Your task to perform on an android device: add a label to a message in the gmail app Image 0: 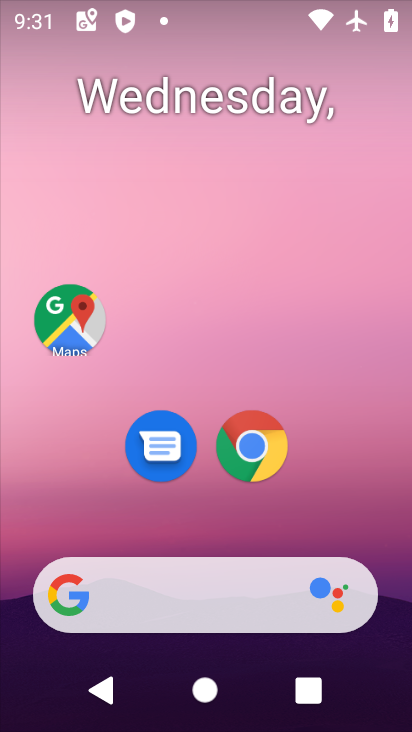
Step 0: press home button
Your task to perform on an android device: add a label to a message in the gmail app Image 1: 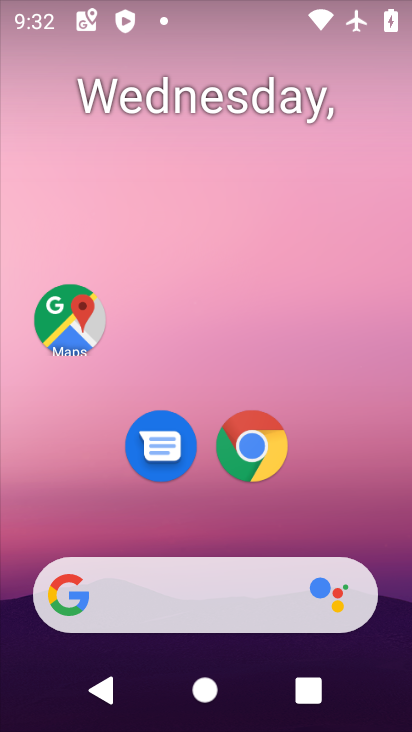
Step 1: drag from (127, 610) to (254, 164)
Your task to perform on an android device: add a label to a message in the gmail app Image 2: 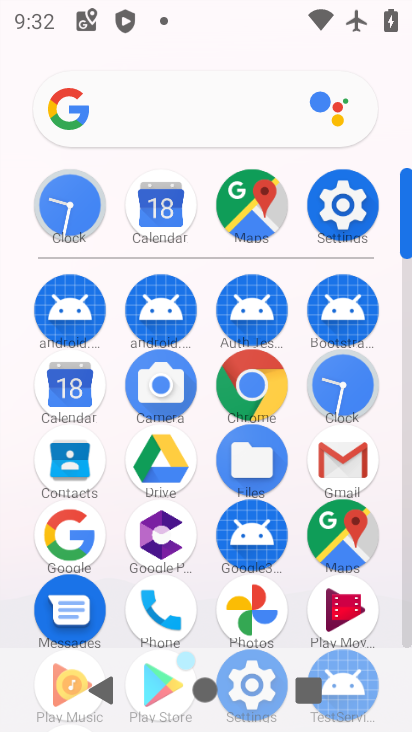
Step 2: click (338, 474)
Your task to perform on an android device: add a label to a message in the gmail app Image 3: 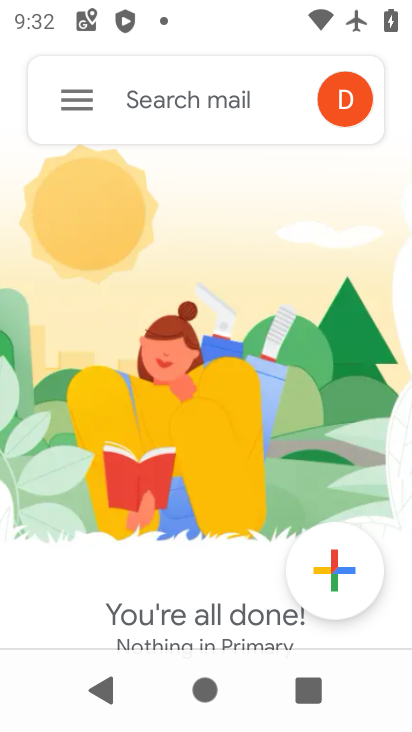
Step 3: task complete